Your task to perform on an android device: turn on the 12-hour format for clock Image 0: 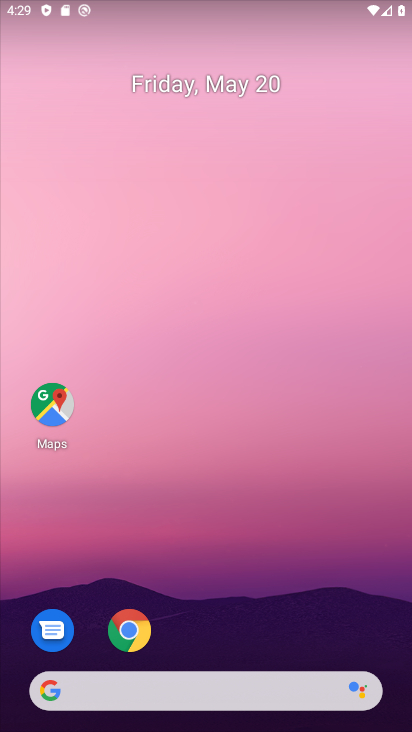
Step 0: drag from (202, 576) to (225, 29)
Your task to perform on an android device: turn on the 12-hour format for clock Image 1: 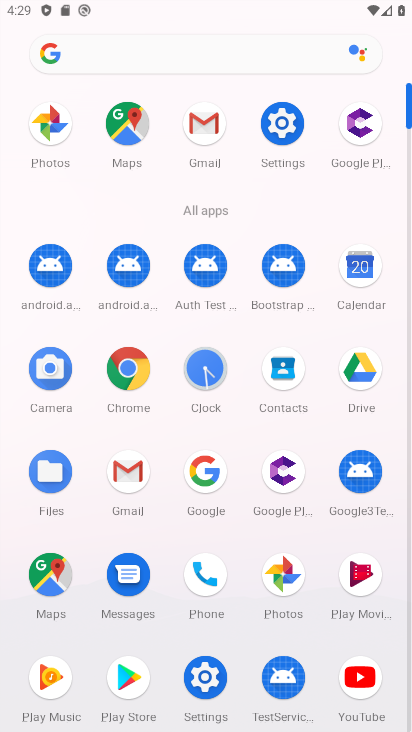
Step 1: click (202, 350)
Your task to perform on an android device: turn on the 12-hour format for clock Image 2: 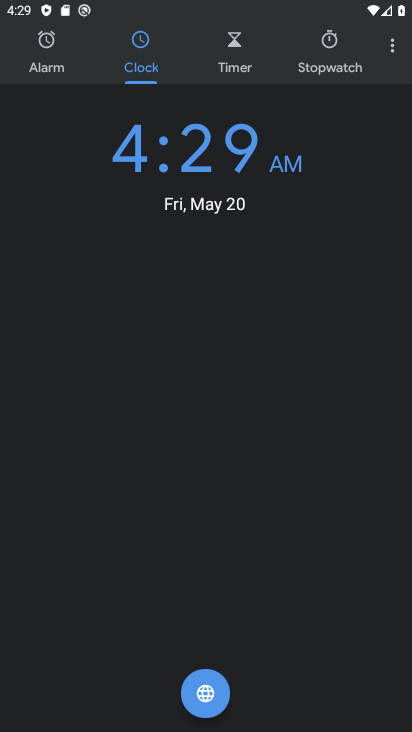
Step 2: click (393, 49)
Your task to perform on an android device: turn on the 12-hour format for clock Image 3: 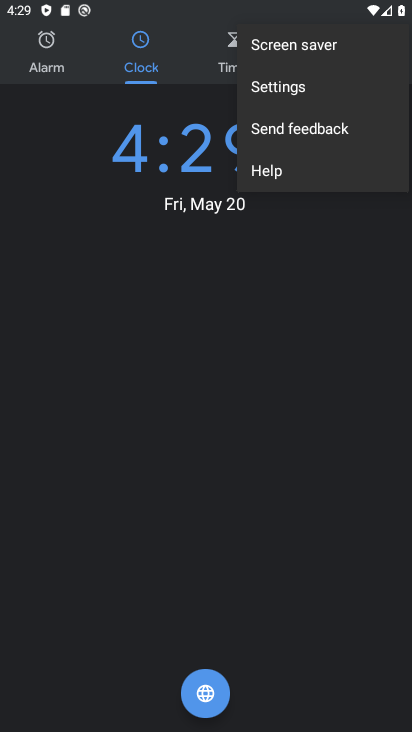
Step 3: click (322, 92)
Your task to perform on an android device: turn on the 12-hour format for clock Image 4: 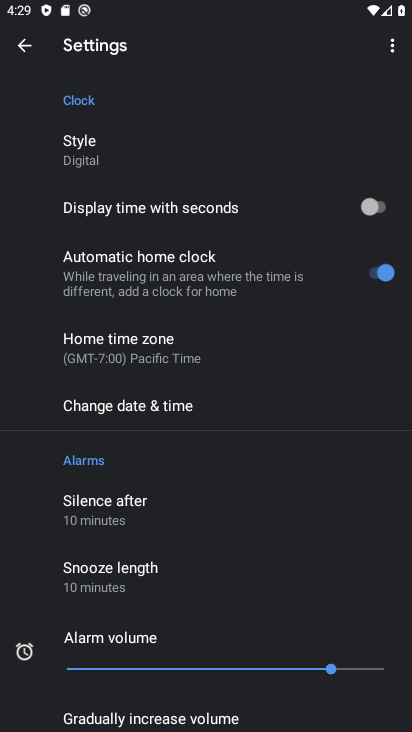
Step 4: click (240, 406)
Your task to perform on an android device: turn on the 12-hour format for clock Image 5: 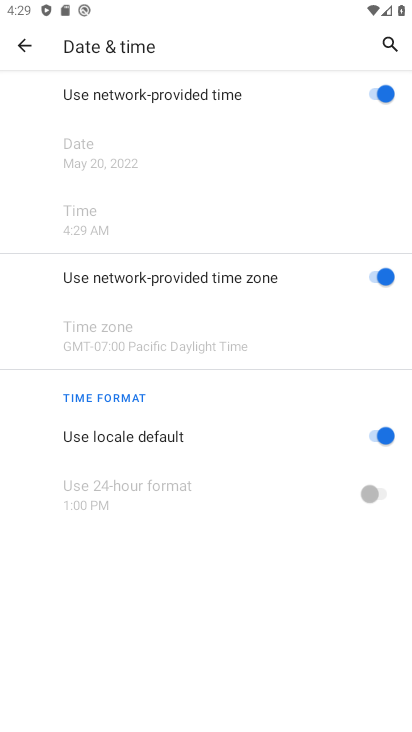
Step 5: task complete